Your task to perform on an android device: open chrome privacy settings Image 0: 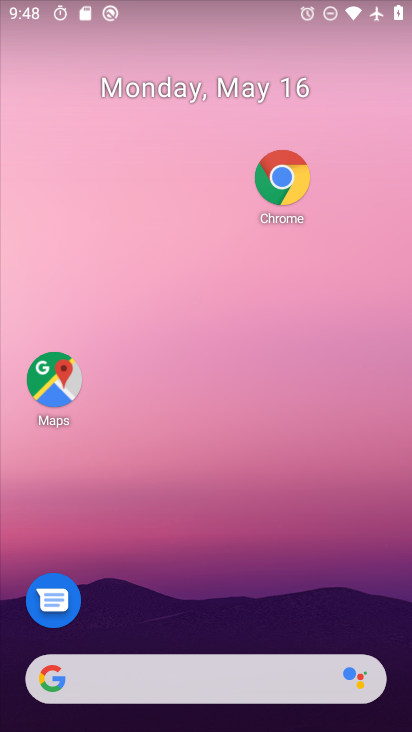
Step 0: click (273, 187)
Your task to perform on an android device: open chrome privacy settings Image 1: 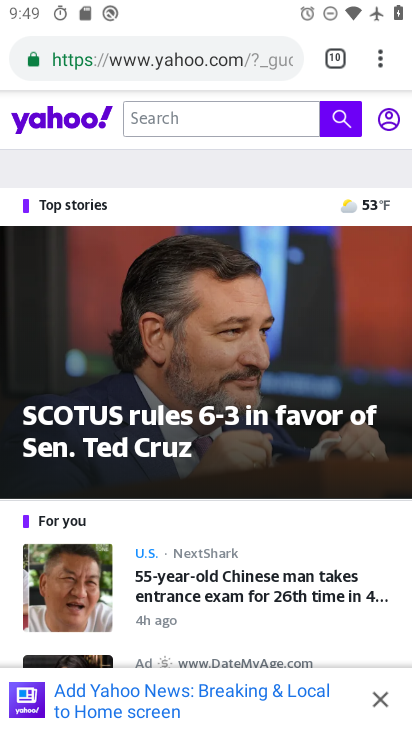
Step 1: drag from (376, 59) to (208, 652)
Your task to perform on an android device: open chrome privacy settings Image 2: 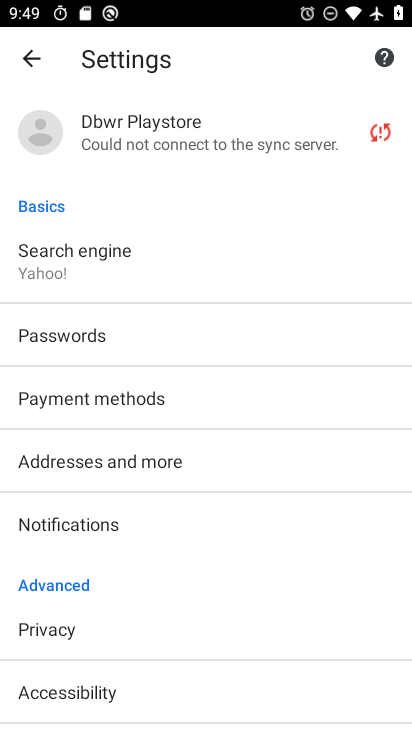
Step 2: click (82, 626)
Your task to perform on an android device: open chrome privacy settings Image 3: 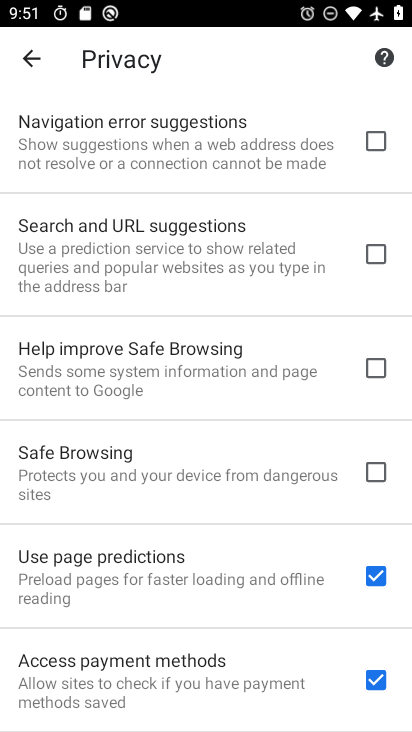
Step 3: task complete